Your task to perform on an android device: allow notifications from all sites in the chrome app Image 0: 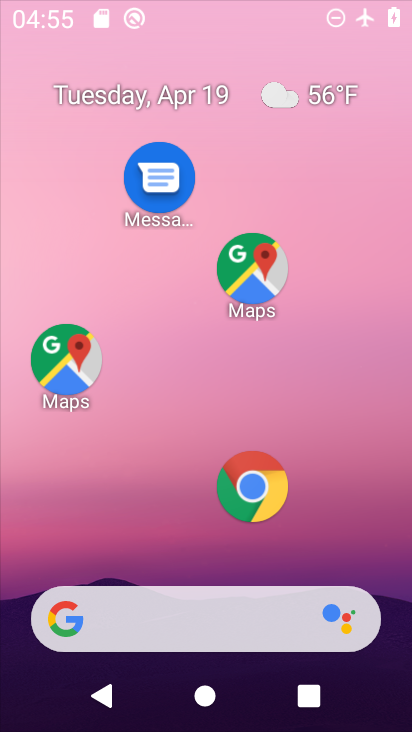
Step 0: drag from (207, 542) to (272, 70)
Your task to perform on an android device: allow notifications from all sites in the chrome app Image 1: 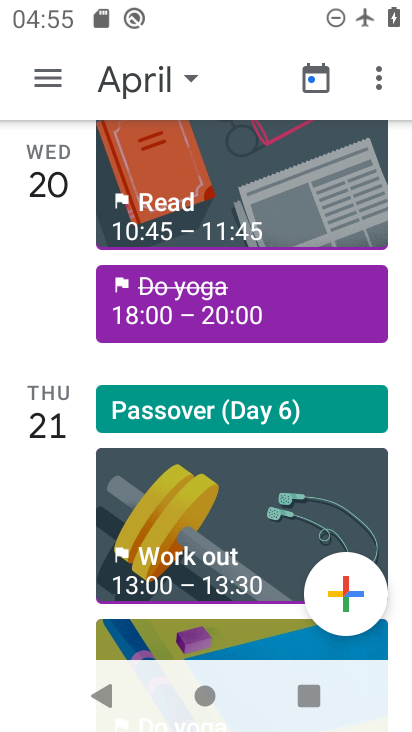
Step 1: press home button
Your task to perform on an android device: allow notifications from all sites in the chrome app Image 2: 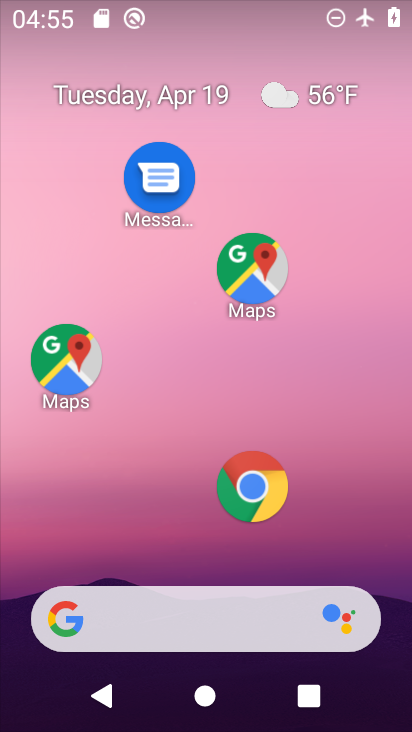
Step 2: click (275, 503)
Your task to perform on an android device: allow notifications from all sites in the chrome app Image 3: 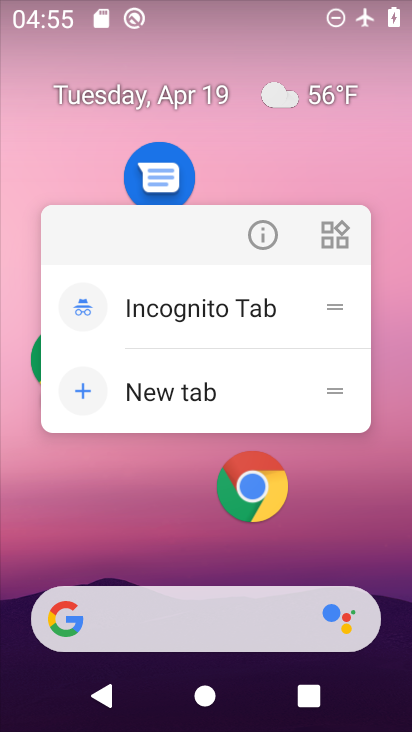
Step 3: click (262, 250)
Your task to perform on an android device: allow notifications from all sites in the chrome app Image 4: 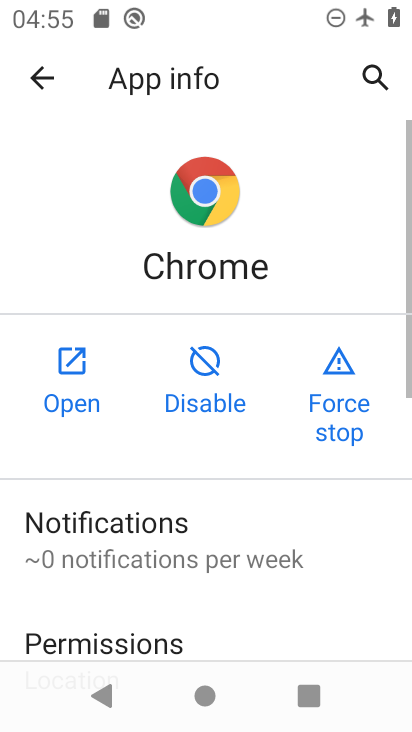
Step 4: click (84, 381)
Your task to perform on an android device: allow notifications from all sites in the chrome app Image 5: 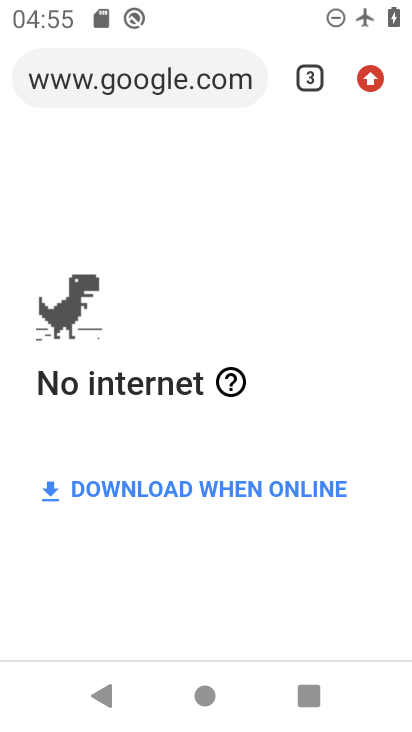
Step 5: click (366, 91)
Your task to perform on an android device: allow notifications from all sites in the chrome app Image 6: 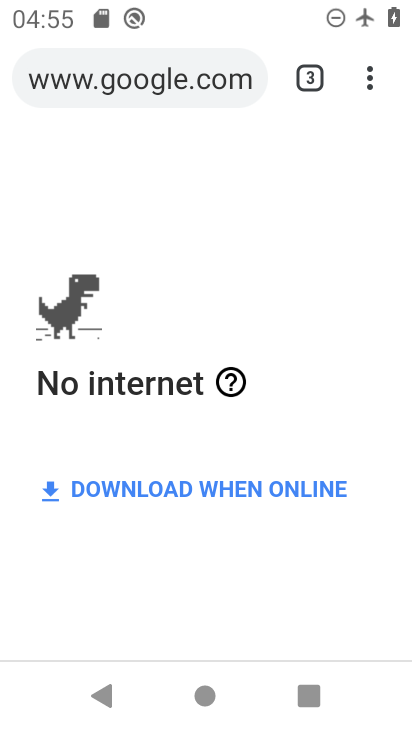
Step 6: click (372, 78)
Your task to perform on an android device: allow notifications from all sites in the chrome app Image 7: 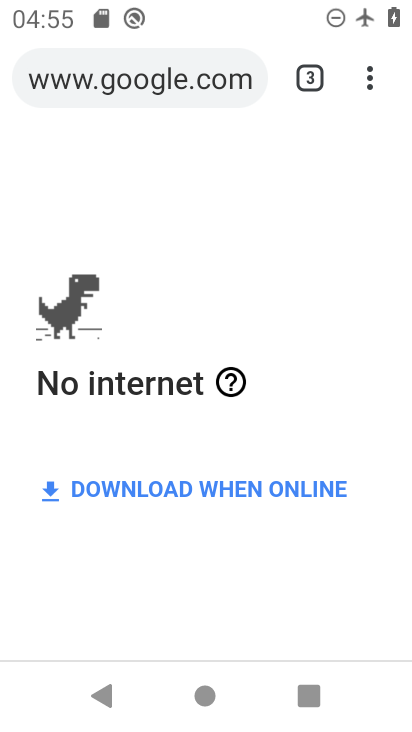
Step 7: click (367, 84)
Your task to perform on an android device: allow notifications from all sites in the chrome app Image 8: 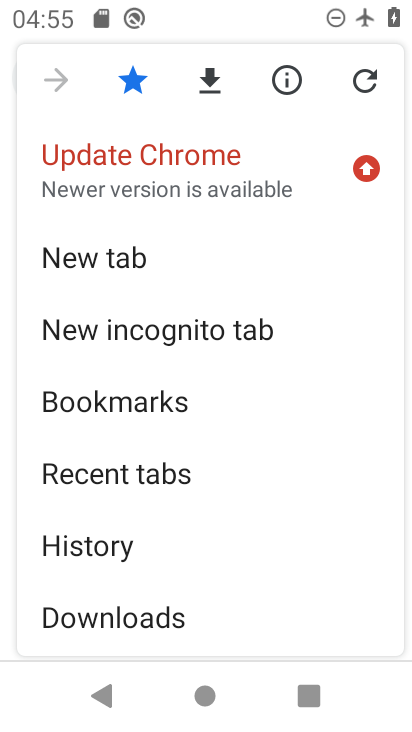
Step 8: drag from (215, 563) to (262, 287)
Your task to perform on an android device: allow notifications from all sites in the chrome app Image 9: 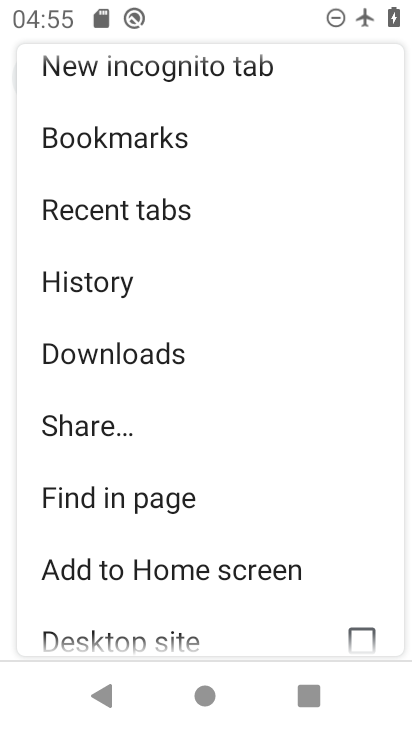
Step 9: drag from (174, 507) to (272, 156)
Your task to perform on an android device: allow notifications from all sites in the chrome app Image 10: 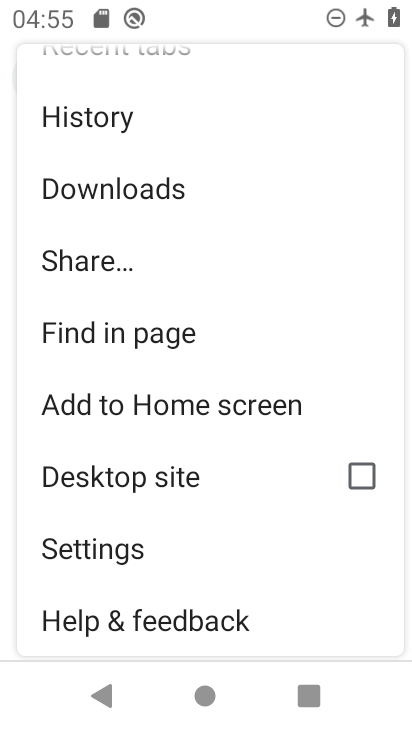
Step 10: click (167, 550)
Your task to perform on an android device: allow notifications from all sites in the chrome app Image 11: 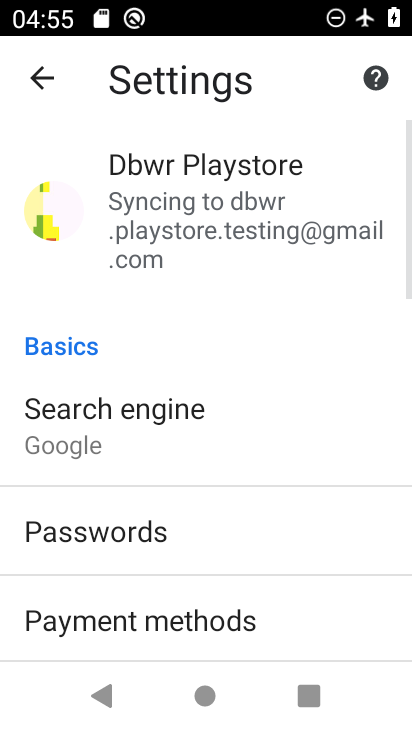
Step 11: drag from (167, 558) to (224, 234)
Your task to perform on an android device: allow notifications from all sites in the chrome app Image 12: 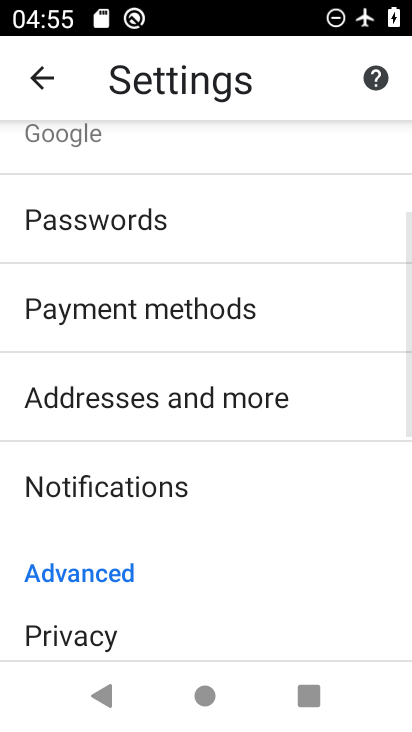
Step 12: drag from (180, 572) to (246, 274)
Your task to perform on an android device: allow notifications from all sites in the chrome app Image 13: 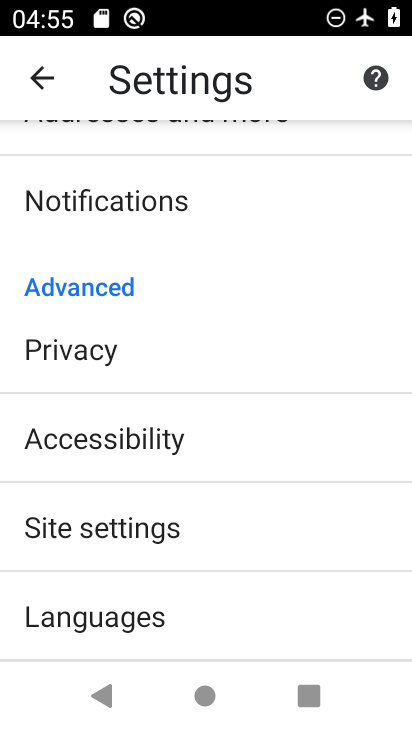
Step 13: drag from (175, 552) to (214, 365)
Your task to perform on an android device: allow notifications from all sites in the chrome app Image 14: 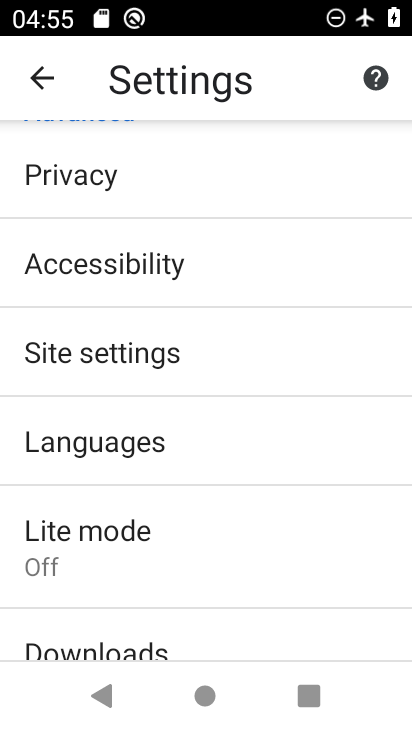
Step 14: click (157, 362)
Your task to perform on an android device: allow notifications from all sites in the chrome app Image 15: 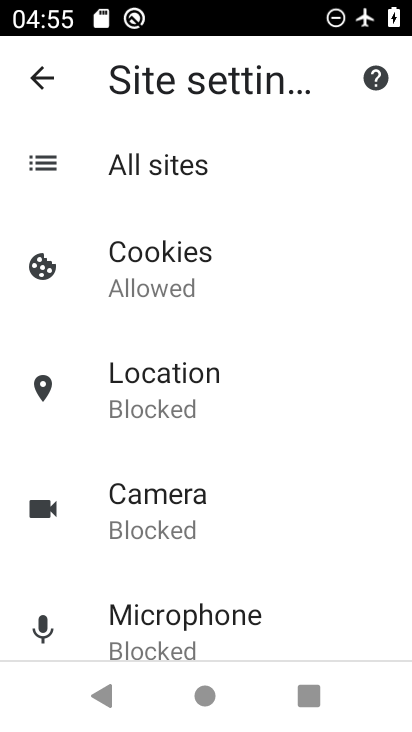
Step 15: click (211, 180)
Your task to perform on an android device: allow notifications from all sites in the chrome app Image 16: 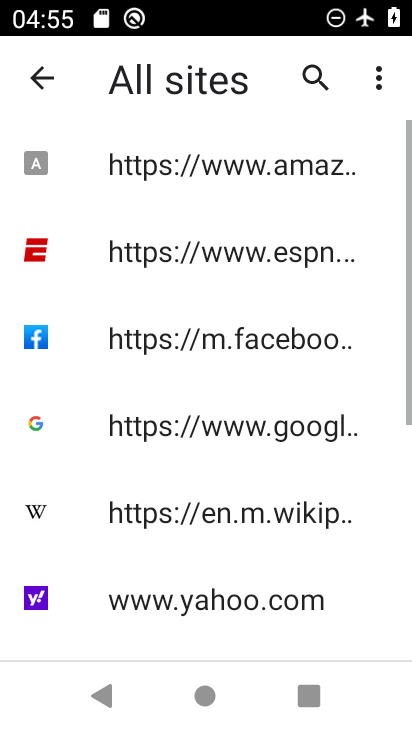
Step 16: drag from (240, 428) to (310, 91)
Your task to perform on an android device: allow notifications from all sites in the chrome app Image 17: 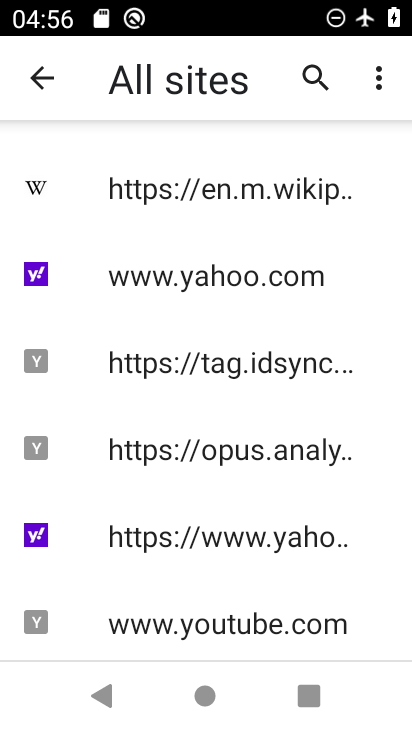
Step 17: drag from (234, 533) to (306, 115)
Your task to perform on an android device: allow notifications from all sites in the chrome app Image 18: 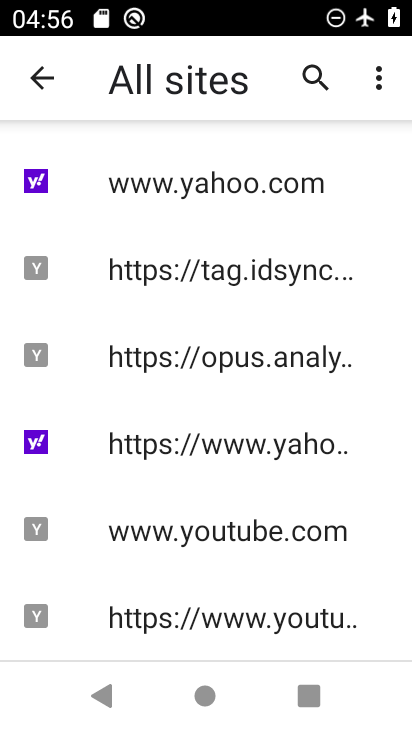
Step 18: drag from (260, 426) to (352, 103)
Your task to perform on an android device: allow notifications from all sites in the chrome app Image 19: 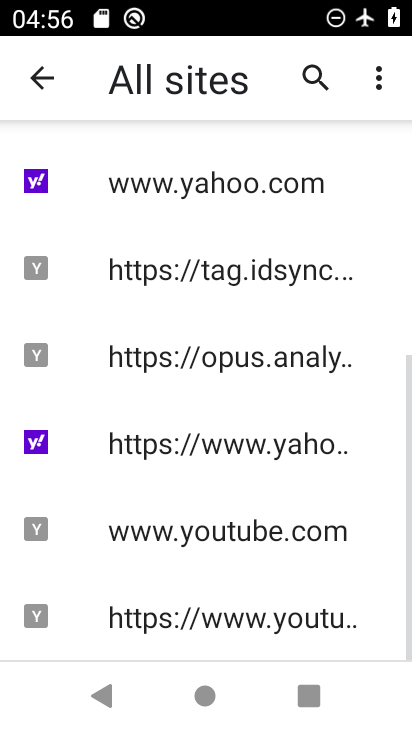
Step 19: click (383, 78)
Your task to perform on an android device: allow notifications from all sites in the chrome app Image 20: 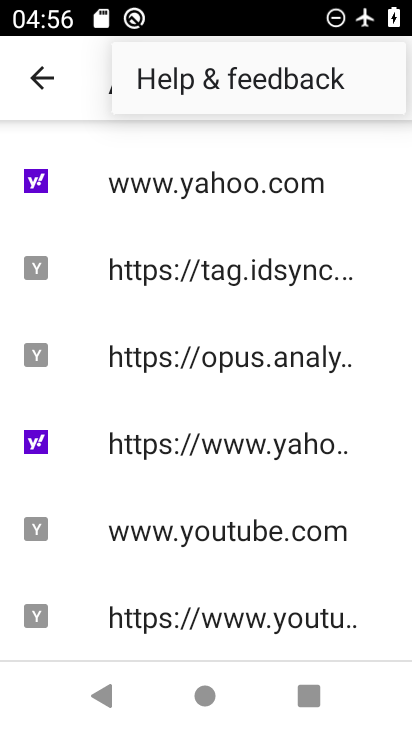
Step 20: task complete